Your task to perform on an android device: delete the emails in spam in the gmail app Image 0: 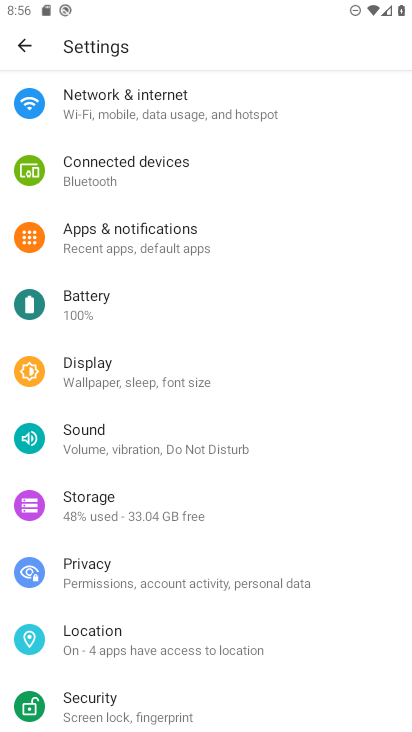
Step 0: press home button
Your task to perform on an android device: delete the emails in spam in the gmail app Image 1: 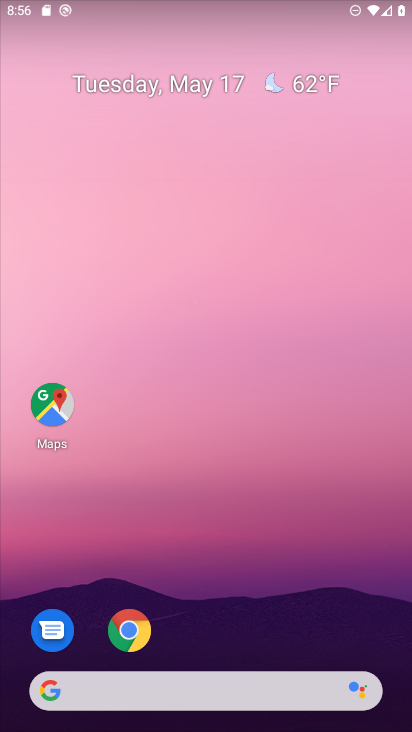
Step 1: drag from (230, 628) to (215, 307)
Your task to perform on an android device: delete the emails in spam in the gmail app Image 2: 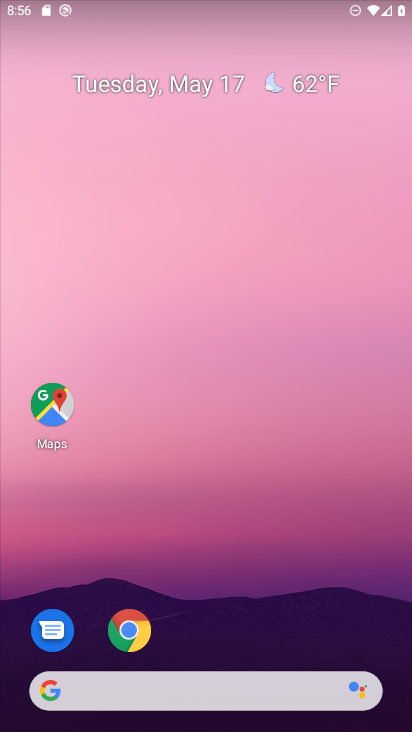
Step 2: drag from (199, 468) to (214, 59)
Your task to perform on an android device: delete the emails in spam in the gmail app Image 3: 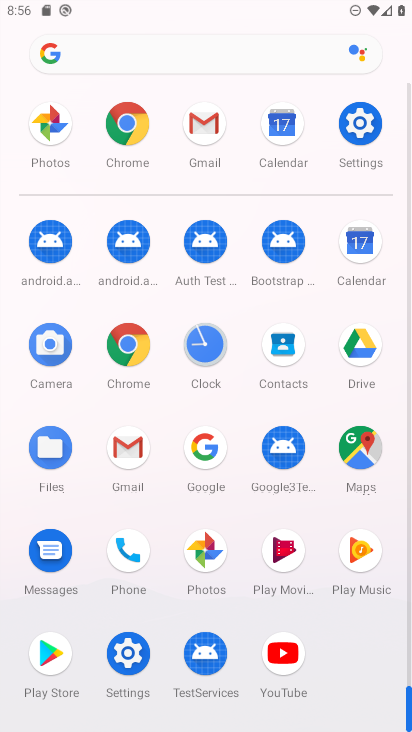
Step 3: click (205, 137)
Your task to perform on an android device: delete the emails in spam in the gmail app Image 4: 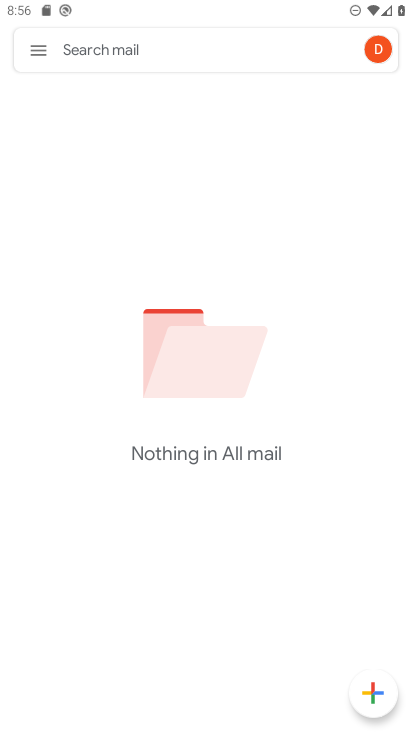
Step 4: click (45, 48)
Your task to perform on an android device: delete the emails in spam in the gmail app Image 5: 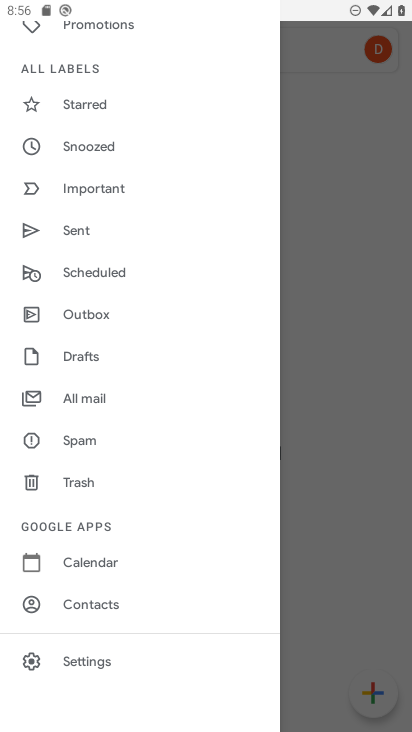
Step 5: click (74, 453)
Your task to perform on an android device: delete the emails in spam in the gmail app Image 6: 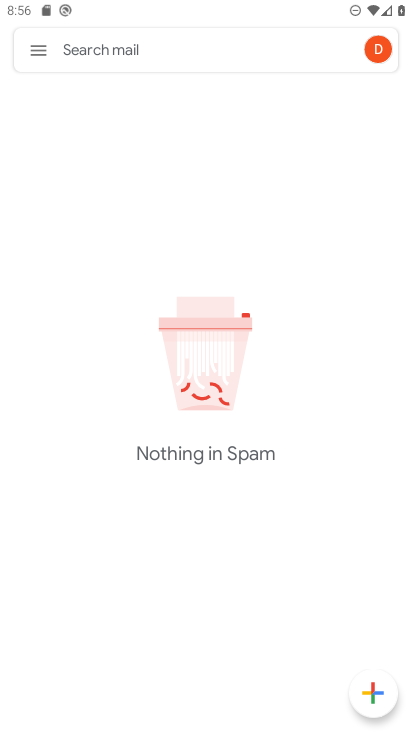
Step 6: task complete